Your task to perform on an android device: turn off sleep mode Image 0: 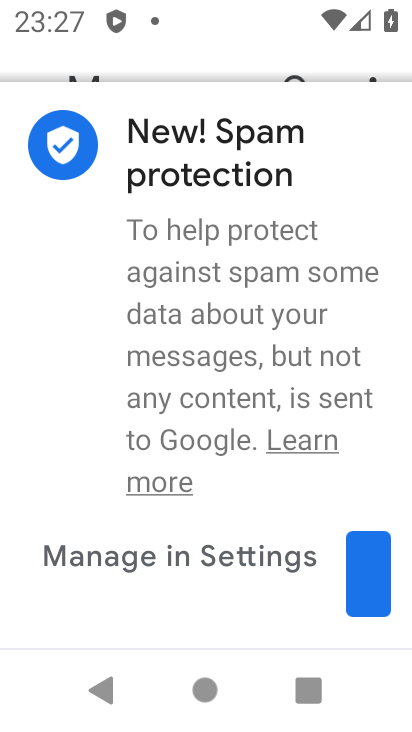
Step 0: press home button
Your task to perform on an android device: turn off sleep mode Image 1: 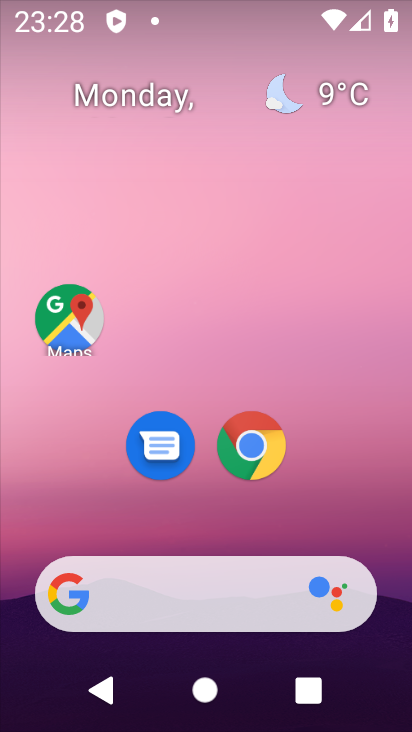
Step 1: drag from (333, 560) to (316, 12)
Your task to perform on an android device: turn off sleep mode Image 2: 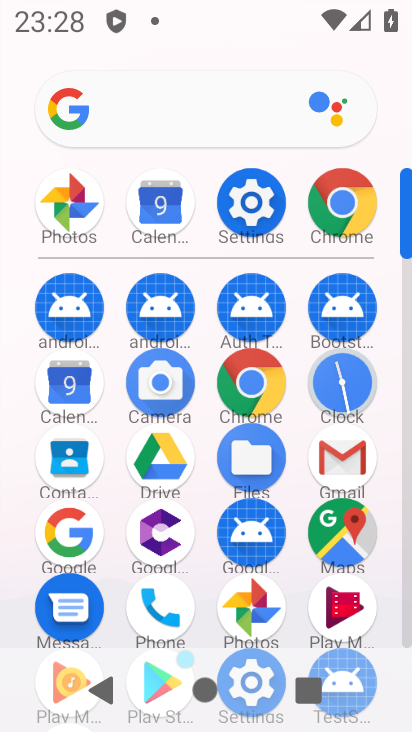
Step 2: click (253, 205)
Your task to perform on an android device: turn off sleep mode Image 3: 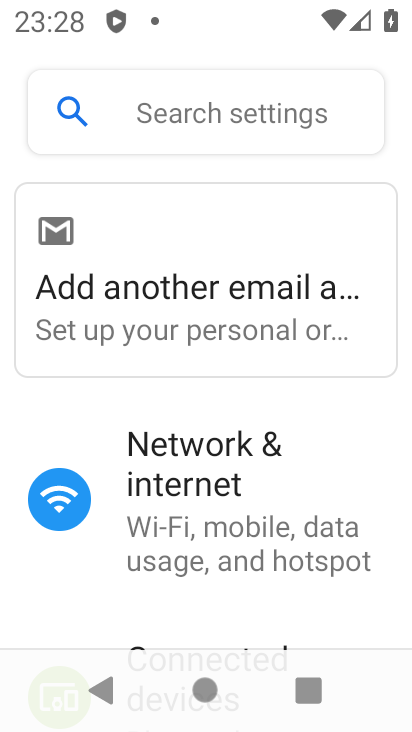
Step 3: task complete